Your task to perform on an android device: Do I have any events this weekend? Image 0: 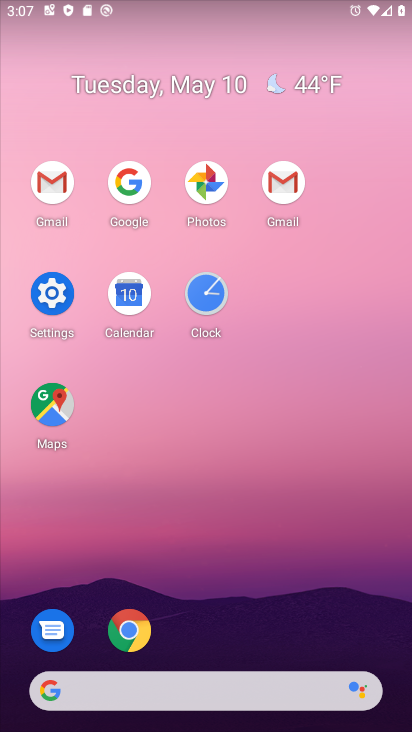
Step 0: click (132, 290)
Your task to perform on an android device: Do I have any events this weekend? Image 1: 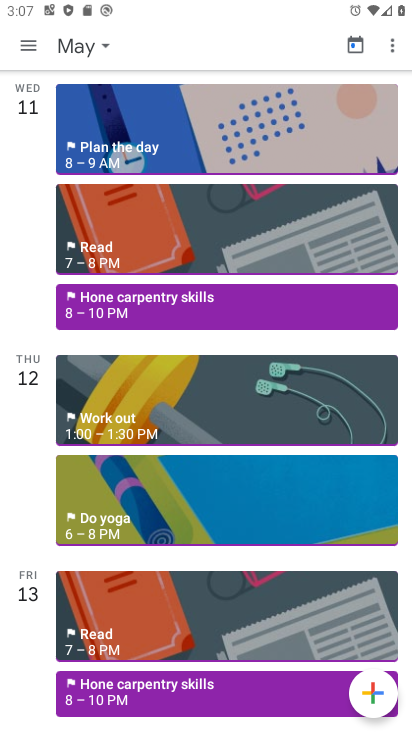
Step 1: click (27, 39)
Your task to perform on an android device: Do I have any events this weekend? Image 2: 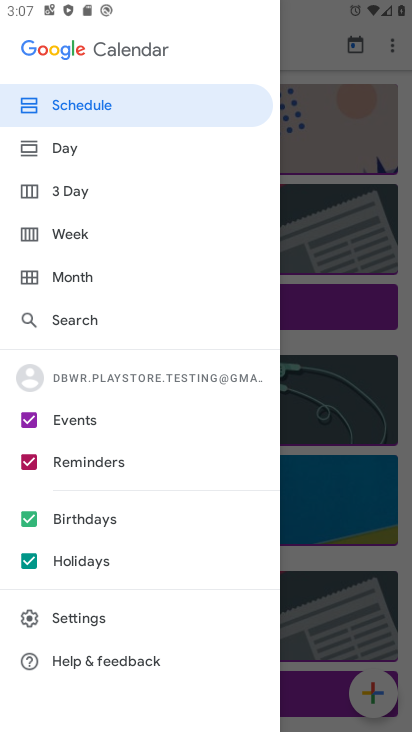
Step 2: click (78, 236)
Your task to perform on an android device: Do I have any events this weekend? Image 3: 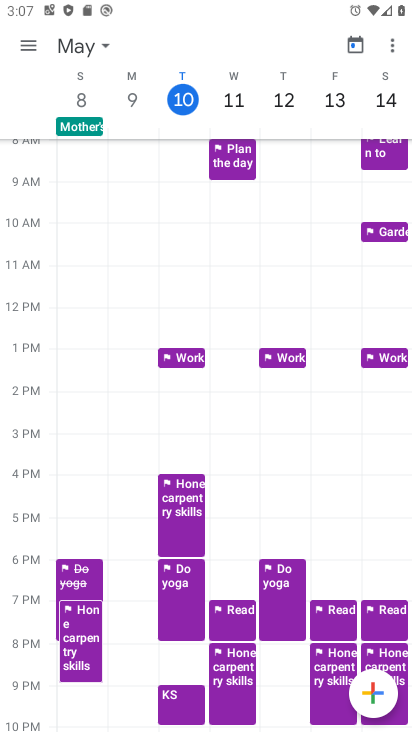
Step 3: click (392, 95)
Your task to perform on an android device: Do I have any events this weekend? Image 4: 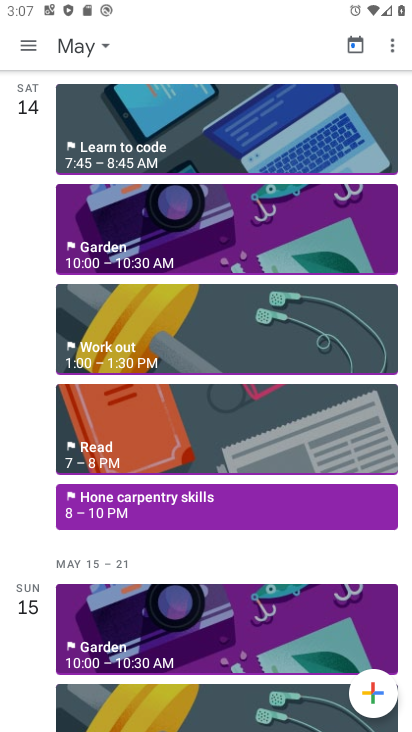
Step 4: task complete